Your task to perform on an android device: Add "bose soundlink mini" to the cart on ebay, then select checkout. Image 0: 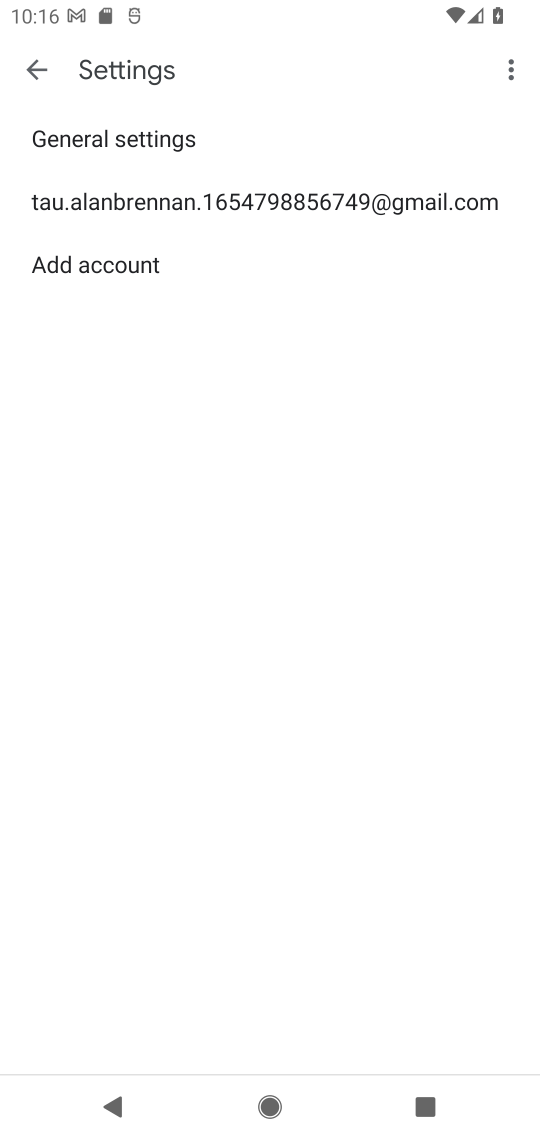
Step 0: press home button
Your task to perform on an android device: Add "bose soundlink mini" to the cart on ebay, then select checkout. Image 1: 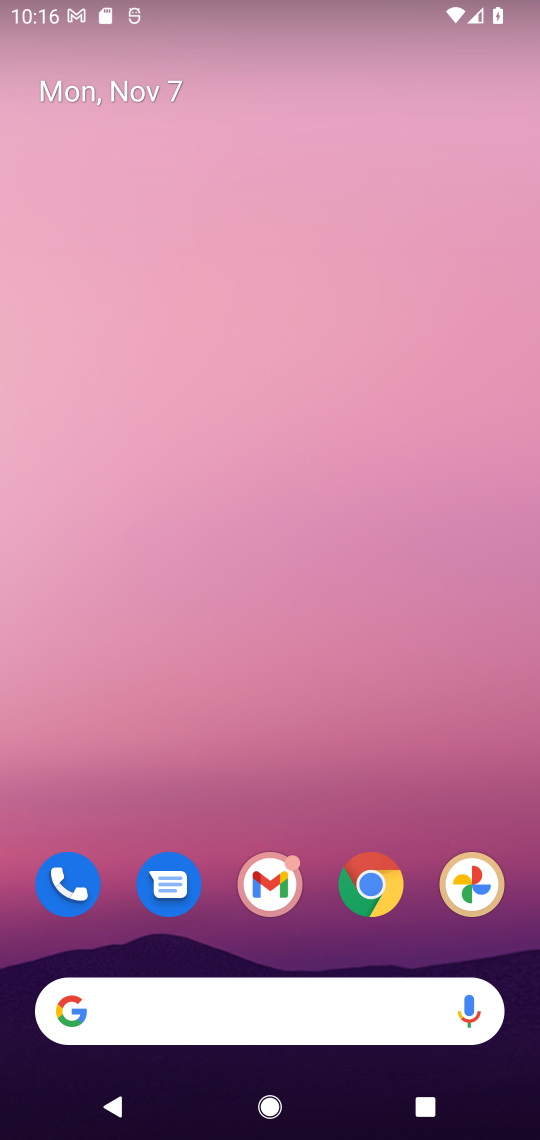
Step 1: click (349, 887)
Your task to perform on an android device: Add "bose soundlink mini" to the cart on ebay, then select checkout. Image 2: 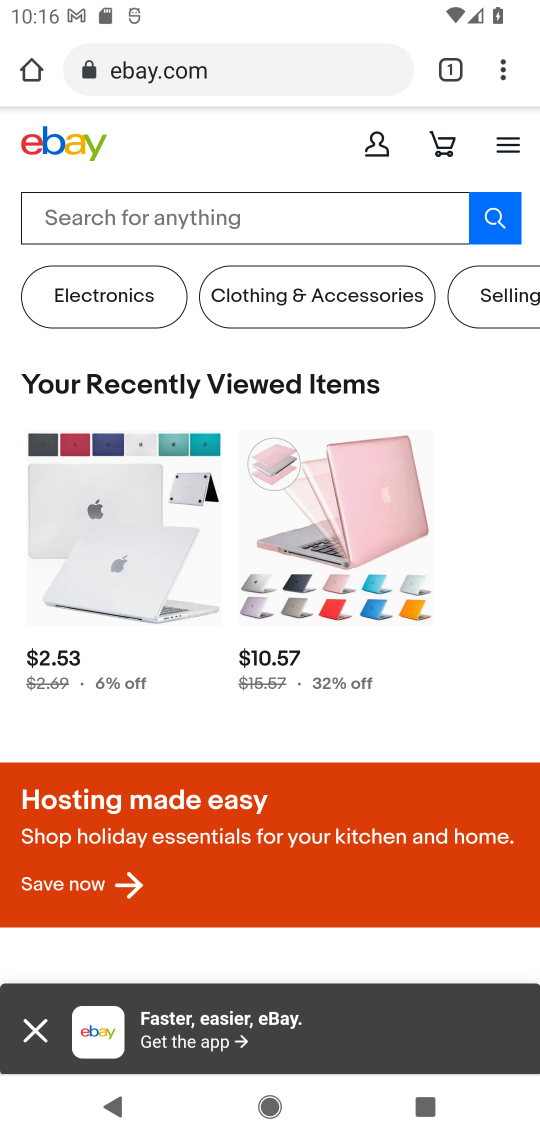
Step 2: click (250, 225)
Your task to perform on an android device: Add "bose soundlink mini" to the cart on ebay, then select checkout. Image 3: 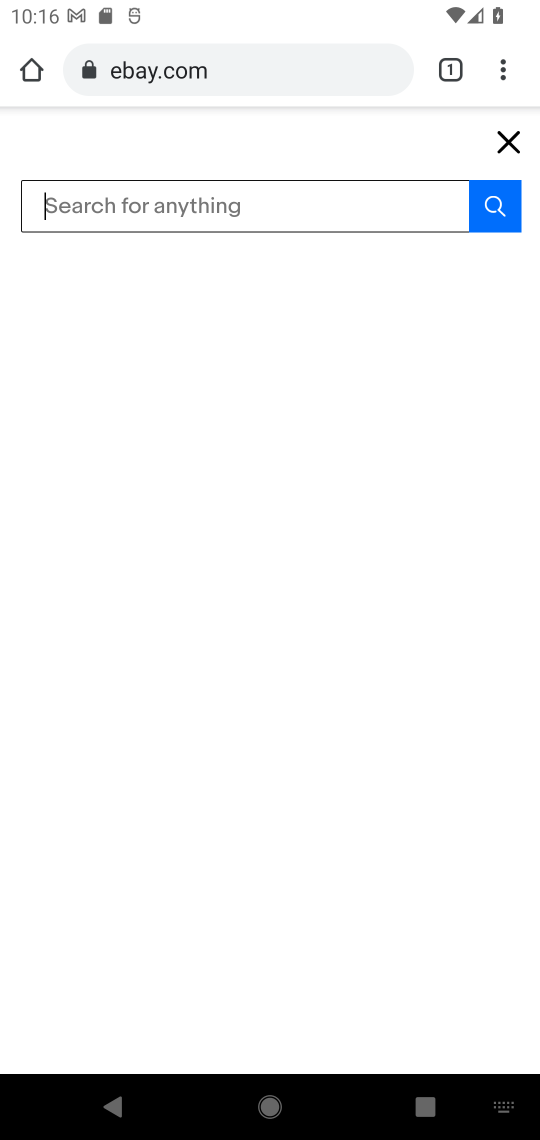
Step 3: type "bose soundlink mini"
Your task to perform on an android device: Add "bose soundlink mini" to the cart on ebay, then select checkout. Image 4: 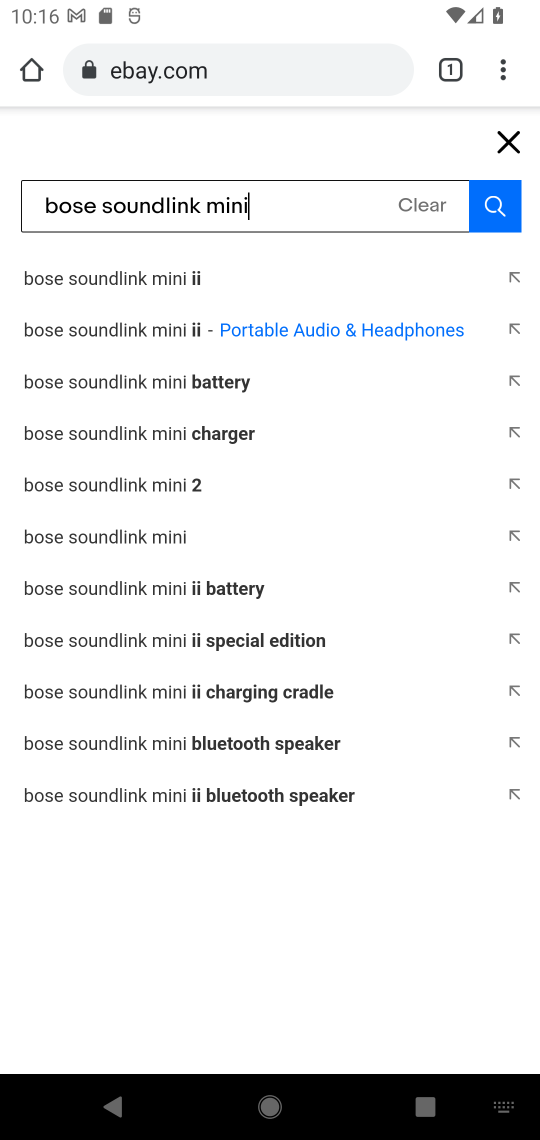
Step 4: click (152, 547)
Your task to perform on an android device: Add "bose soundlink mini" to the cart on ebay, then select checkout. Image 5: 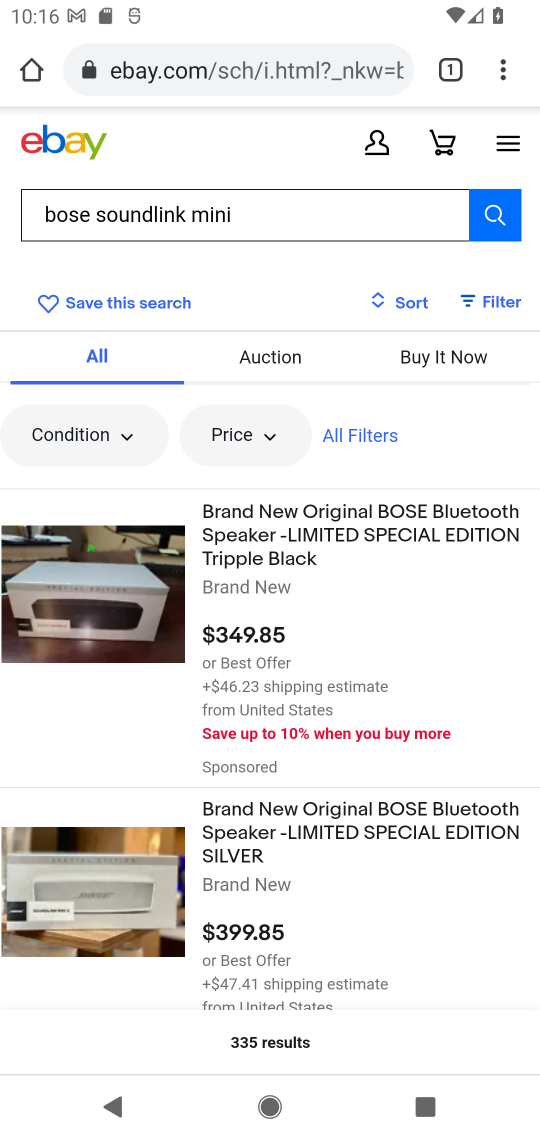
Step 5: drag from (241, 881) to (258, 468)
Your task to perform on an android device: Add "bose soundlink mini" to the cart on ebay, then select checkout. Image 6: 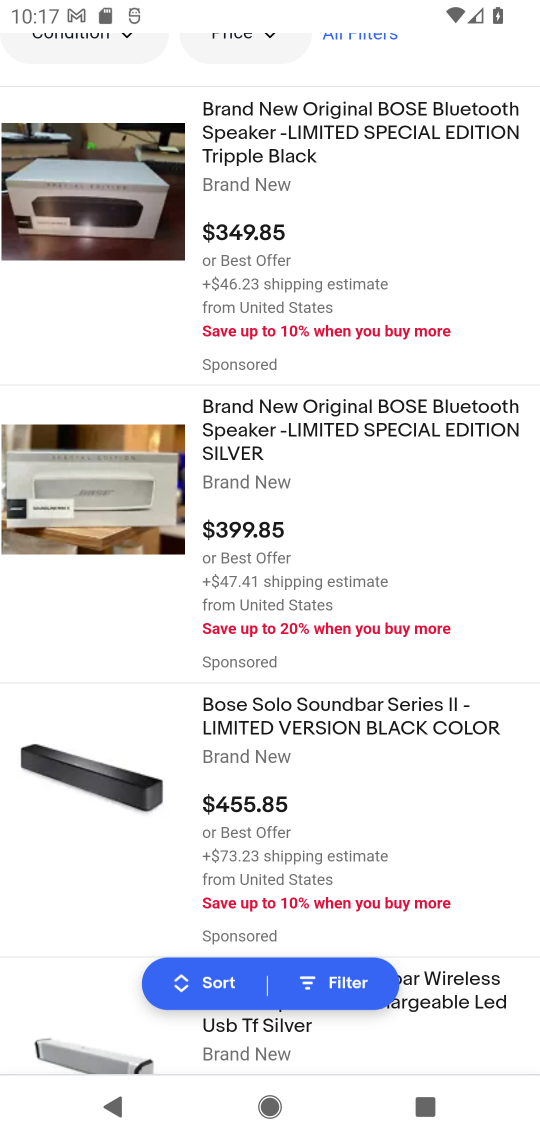
Step 6: drag from (376, 791) to (315, 561)
Your task to perform on an android device: Add "bose soundlink mini" to the cart on ebay, then select checkout. Image 7: 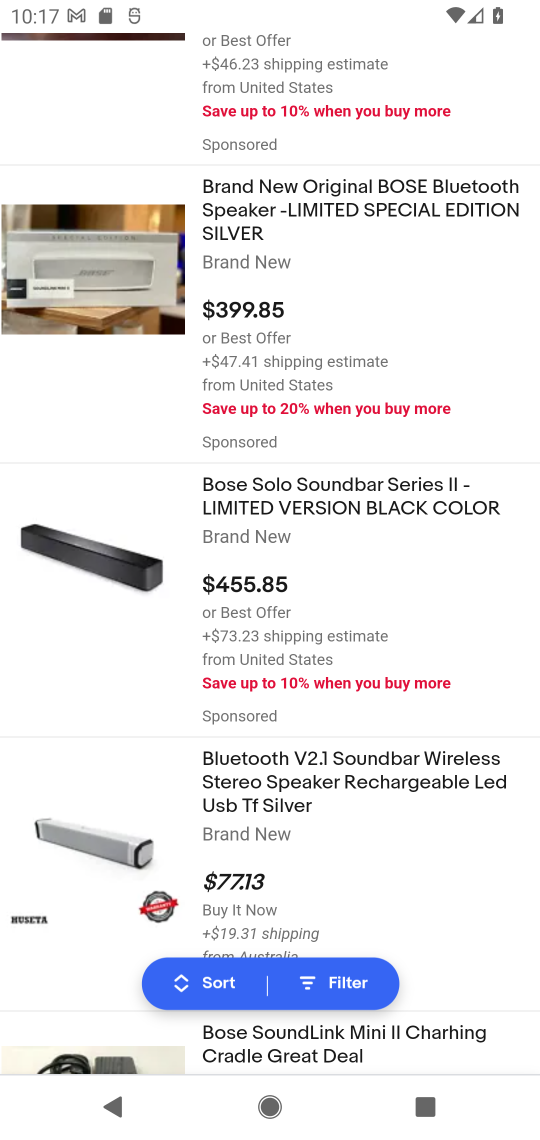
Step 7: drag from (437, 795) to (371, 520)
Your task to perform on an android device: Add "bose soundlink mini" to the cart on ebay, then select checkout. Image 8: 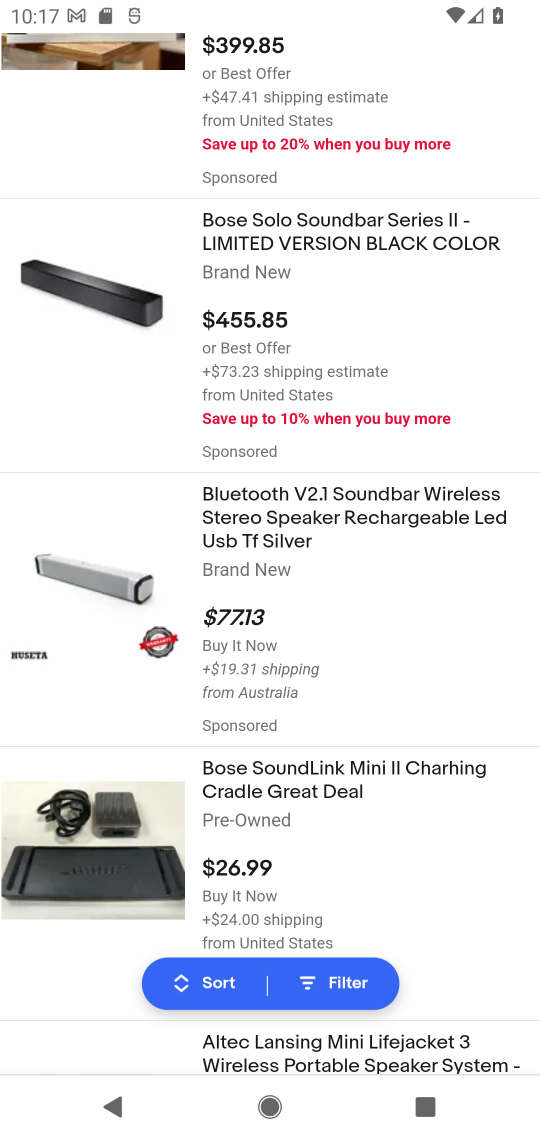
Step 8: click (116, 790)
Your task to perform on an android device: Add "bose soundlink mini" to the cart on ebay, then select checkout. Image 9: 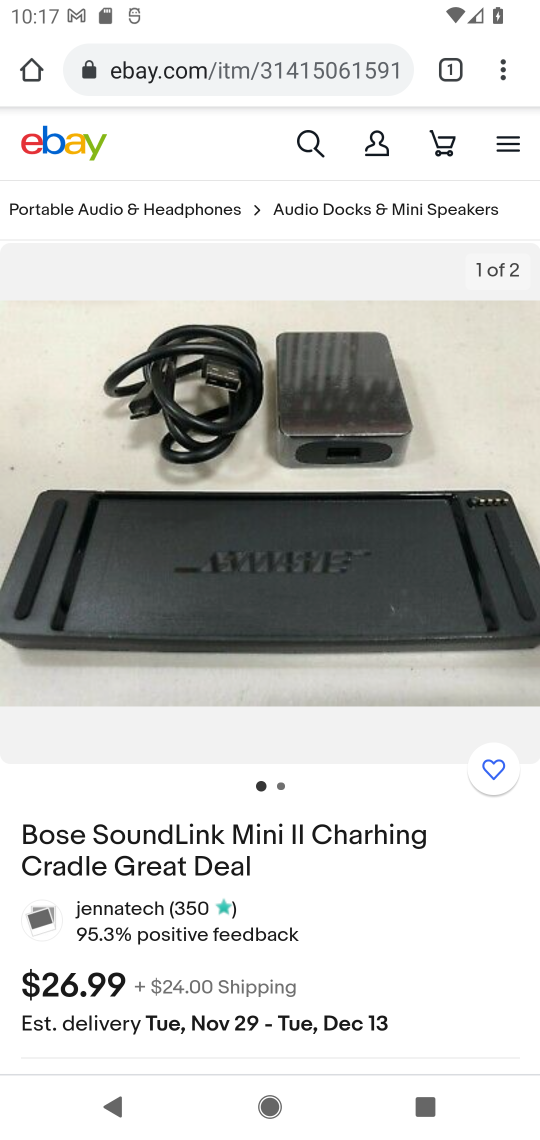
Step 9: drag from (381, 635) to (357, 394)
Your task to perform on an android device: Add "bose soundlink mini" to the cart on ebay, then select checkout. Image 10: 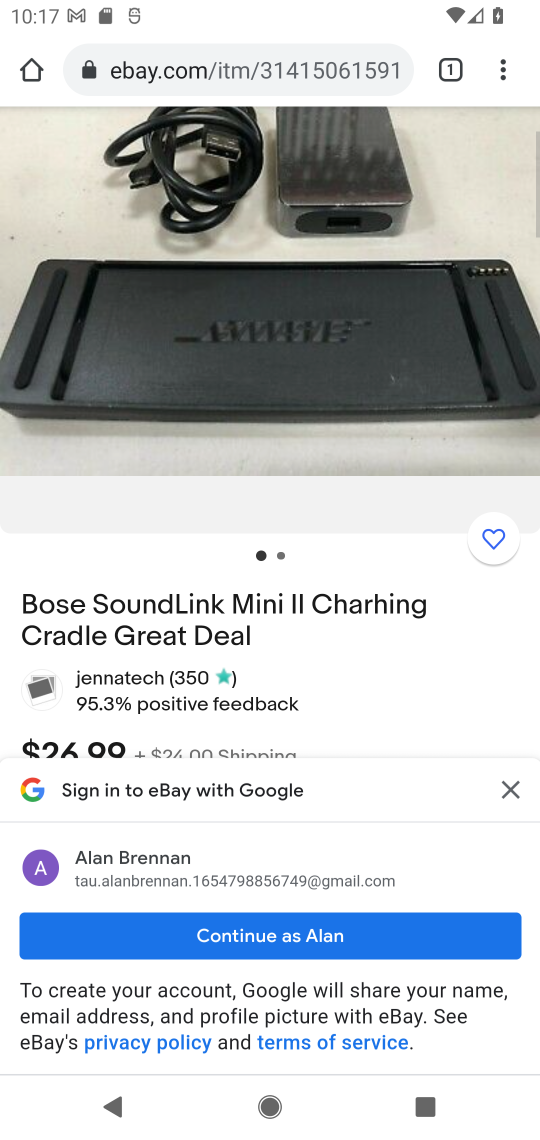
Step 10: drag from (376, 614) to (370, 538)
Your task to perform on an android device: Add "bose soundlink mini" to the cart on ebay, then select checkout. Image 11: 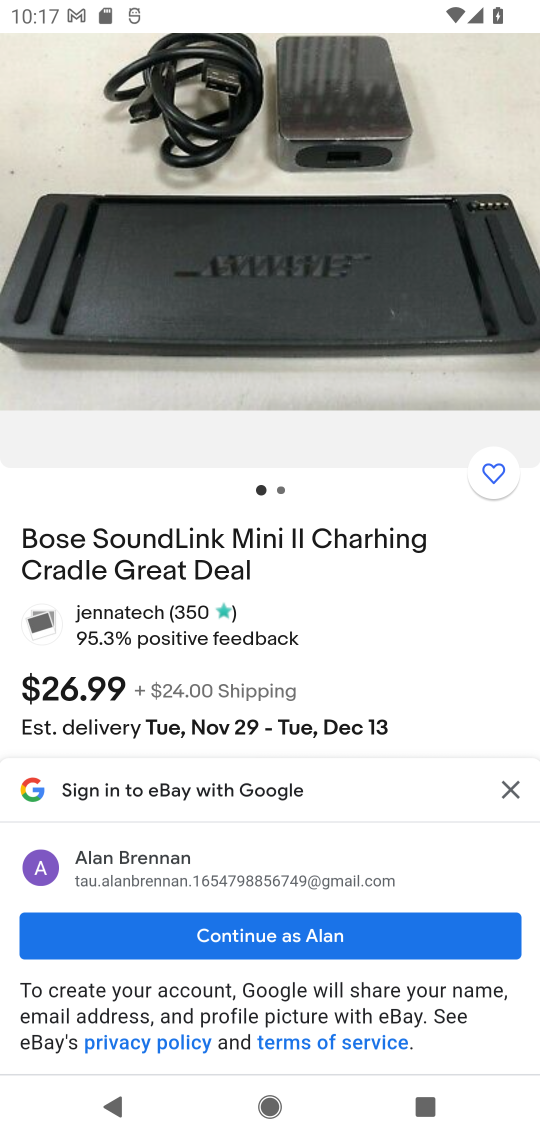
Step 11: drag from (407, 672) to (382, 342)
Your task to perform on an android device: Add "bose soundlink mini" to the cart on ebay, then select checkout. Image 12: 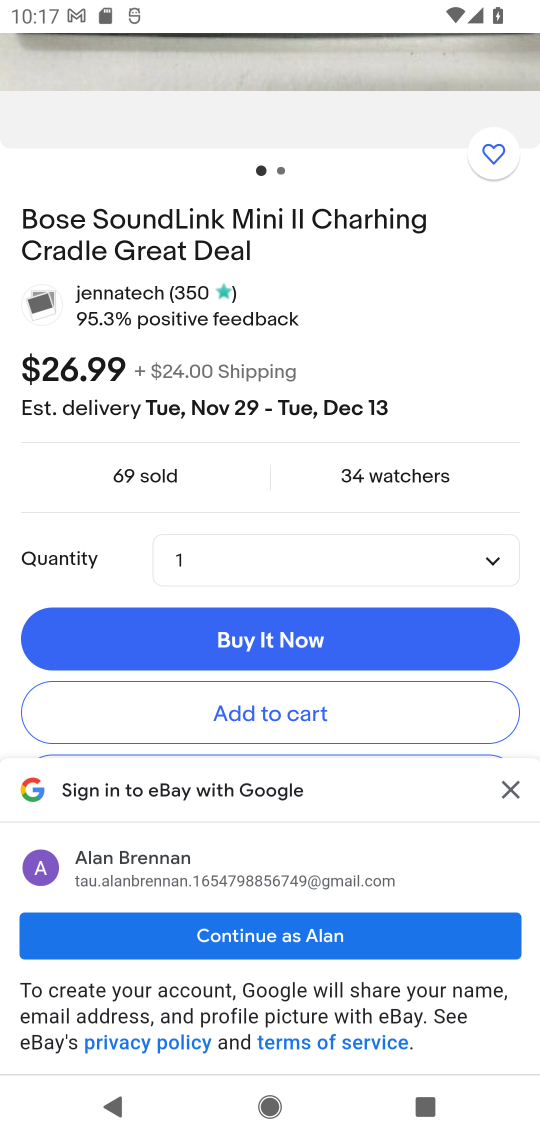
Step 12: click (335, 708)
Your task to perform on an android device: Add "bose soundlink mini" to the cart on ebay, then select checkout. Image 13: 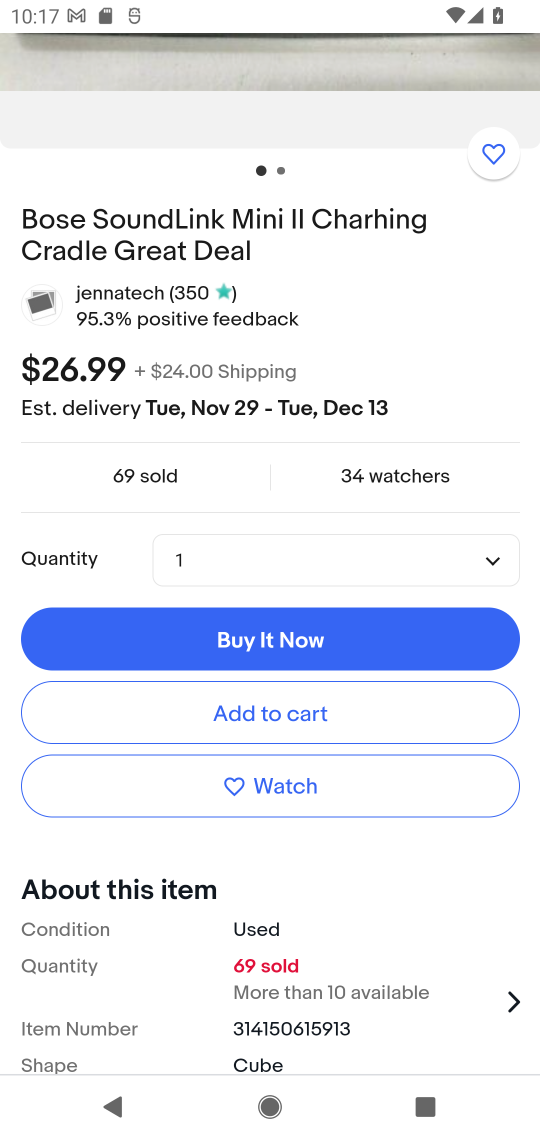
Step 13: click (267, 716)
Your task to perform on an android device: Add "bose soundlink mini" to the cart on ebay, then select checkout. Image 14: 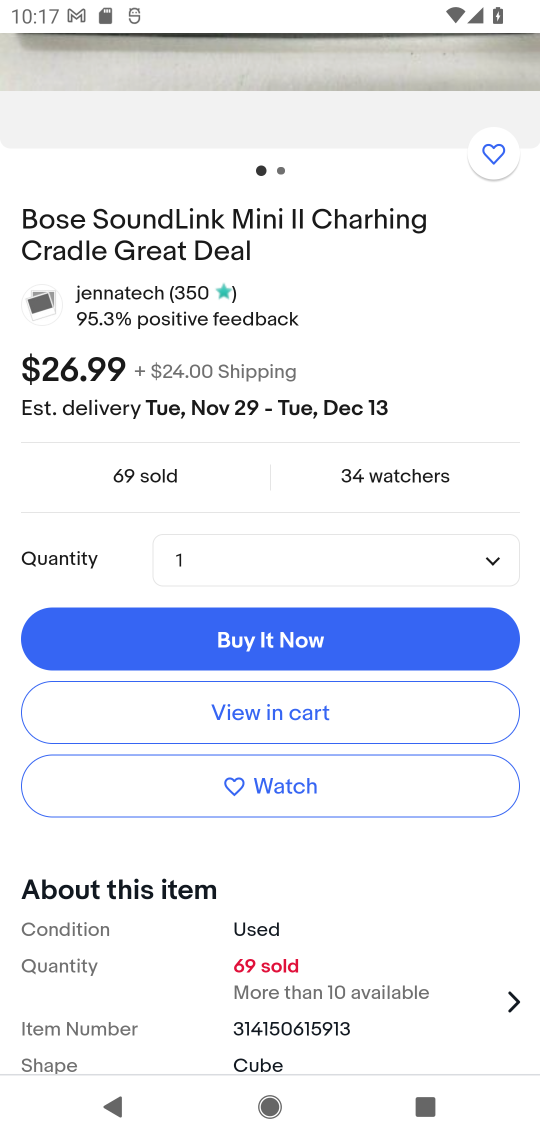
Step 14: click (268, 715)
Your task to perform on an android device: Add "bose soundlink mini" to the cart on ebay, then select checkout. Image 15: 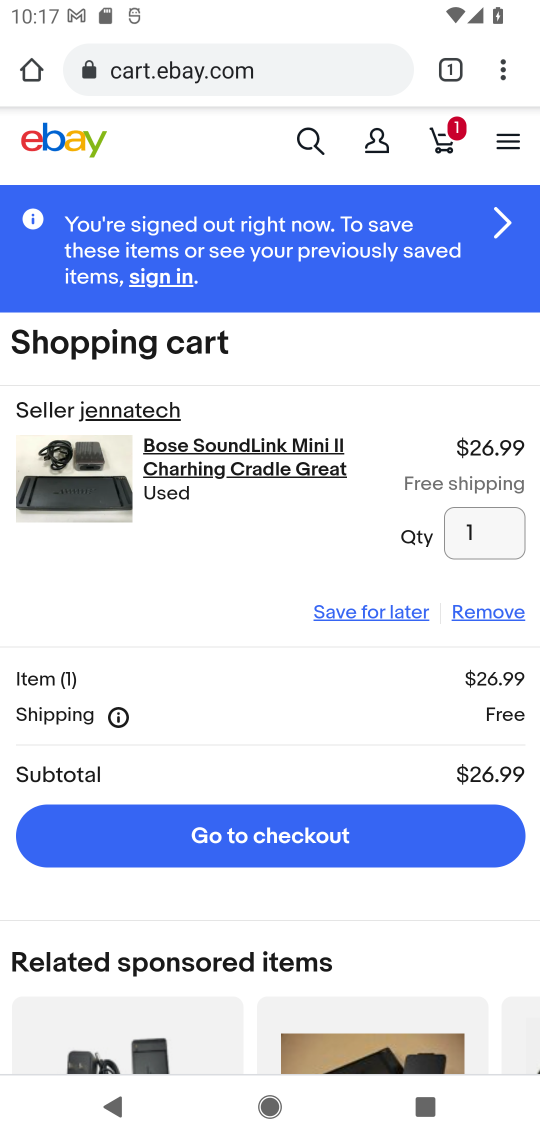
Step 15: click (288, 836)
Your task to perform on an android device: Add "bose soundlink mini" to the cart on ebay, then select checkout. Image 16: 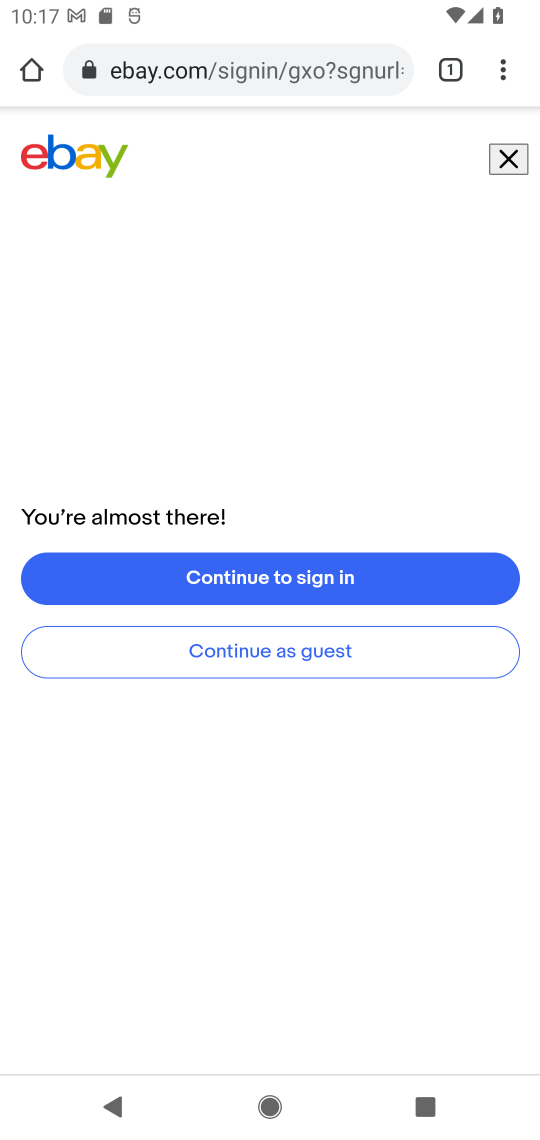
Step 16: task complete